Your task to perform on an android device: allow notifications from all sites in the chrome app Image 0: 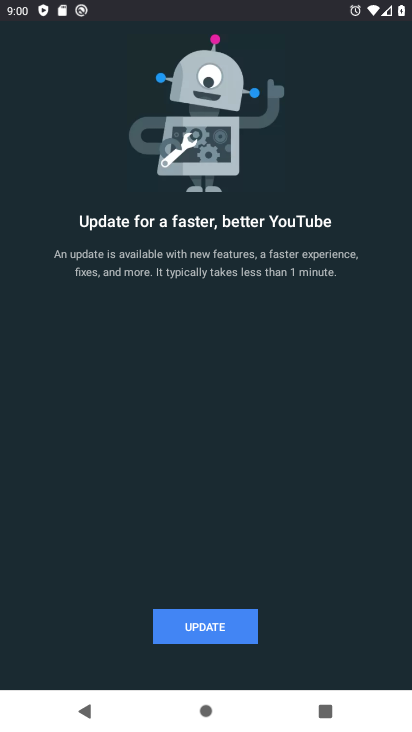
Step 0: press home button
Your task to perform on an android device: allow notifications from all sites in the chrome app Image 1: 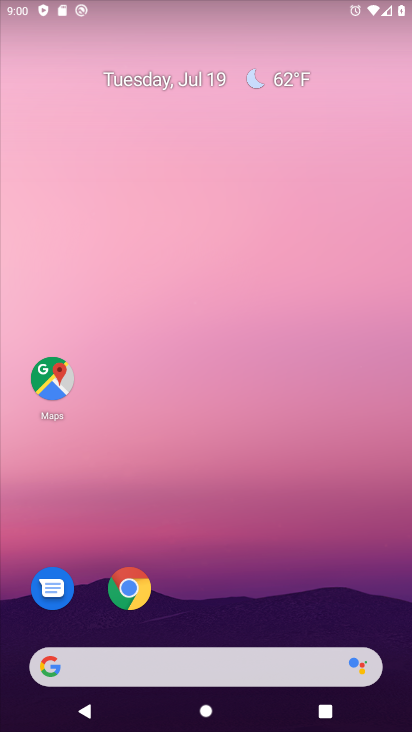
Step 1: drag from (274, 552) to (272, 30)
Your task to perform on an android device: allow notifications from all sites in the chrome app Image 2: 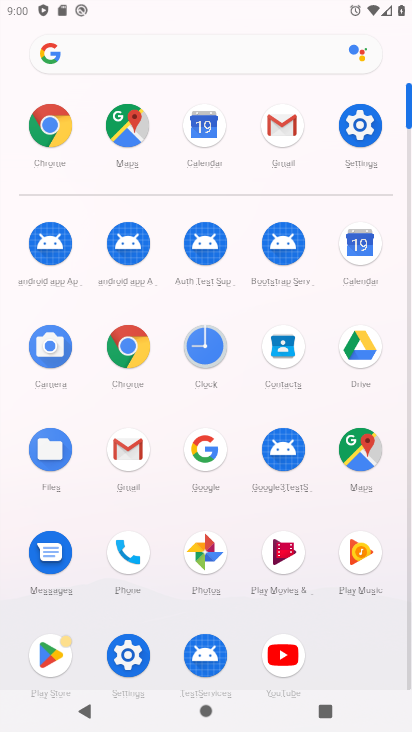
Step 2: click (41, 129)
Your task to perform on an android device: allow notifications from all sites in the chrome app Image 3: 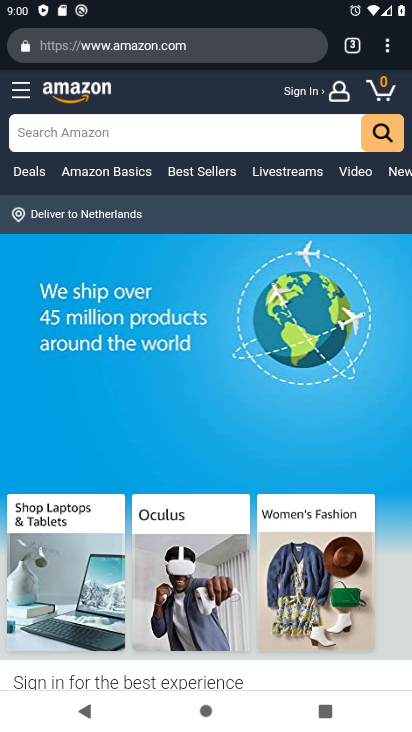
Step 3: drag from (384, 43) to (263, 558)
Your task to perform on an android device: allow notifications from all sites in the chrome app Image 4: 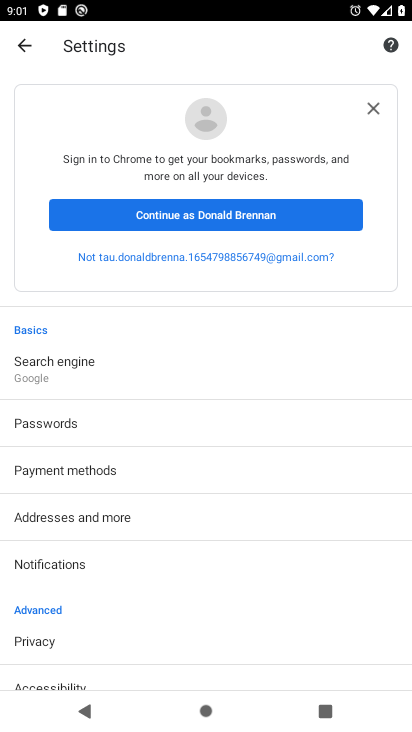
Step 4: click (51, 231)
Your task to perform on an android device: allow notifications from all sites in the chrome app Image 5: 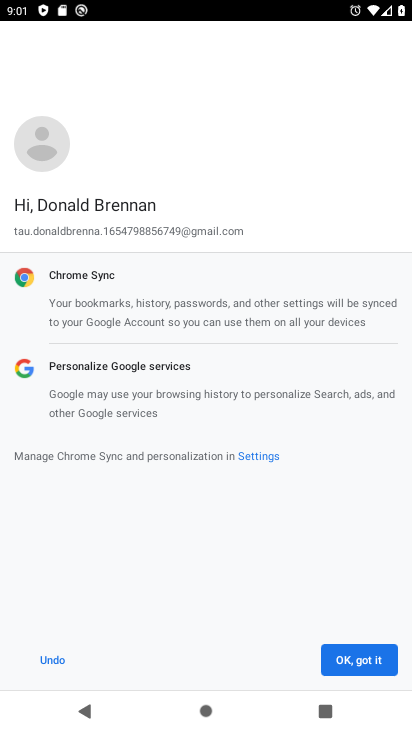
Step 5: press back button
Your task to perform on an android device: allow notifications from all sites in the chrome app Image 6: 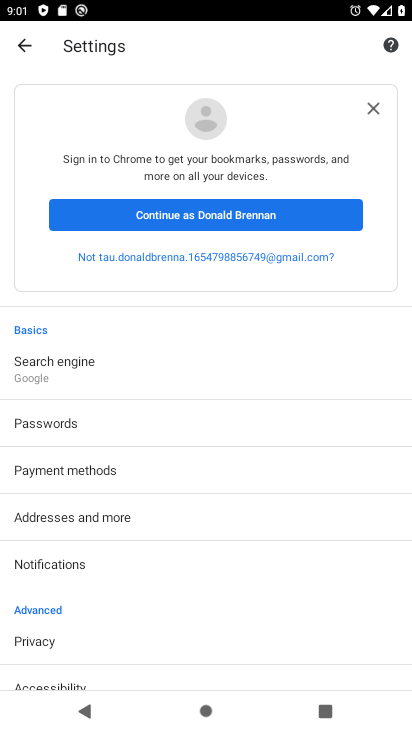
Step 6: drag from (166, 631) to (282, 299)
Your task to perform on an android device: allow notifications from all sites in the chrome app Image 7: 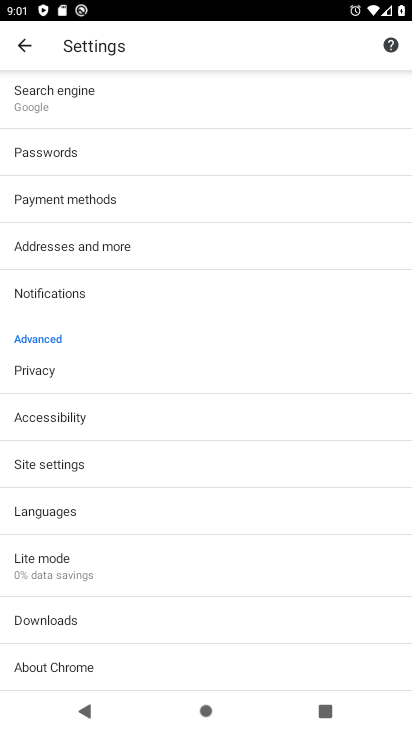
Step 7: drag from (243, 208) to (181, 694)
Your task to perform on an android device: allow notifications from all sites in the chrome app Image 8: 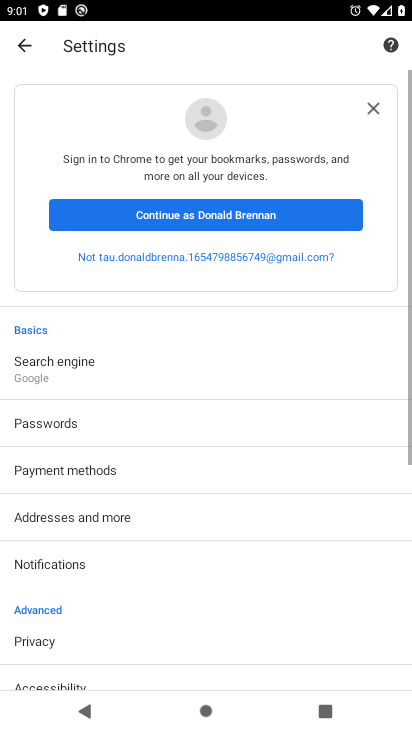
Step 8: drag from (142, 592) to (232, 199)
Your task to perform on an android device: allow notifications from all sites in the chrome app Image 9: 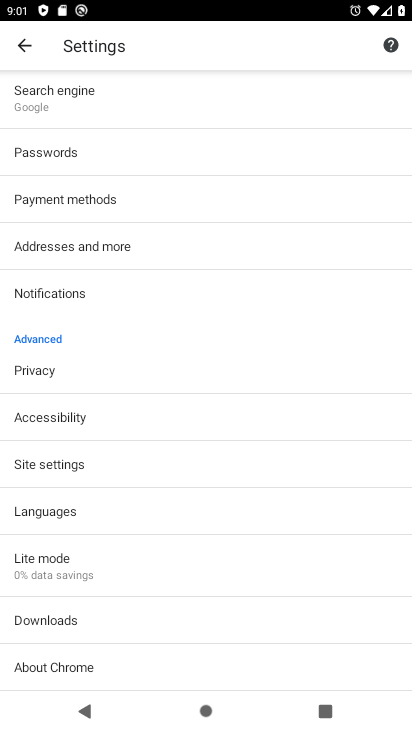
Step 9: click (42, 463)
Your task to perform on an android device: allow notifications from all sites in the chrome app Image 10: 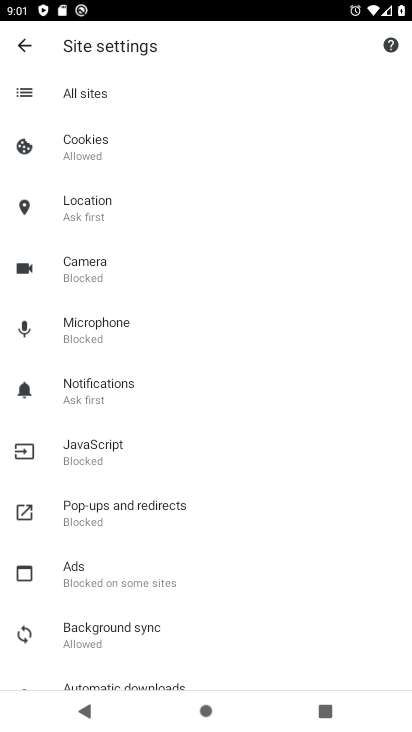
Step 10: click (80, 396)
Your task to perform on an android device: allow notifications from all sites in the chrome app Image 11: 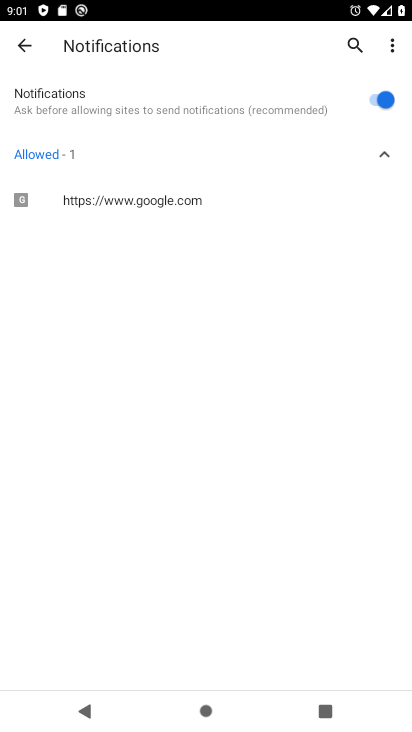
Step 11: task complete